Your task to perform on an android device: turn off wifi Image 0: 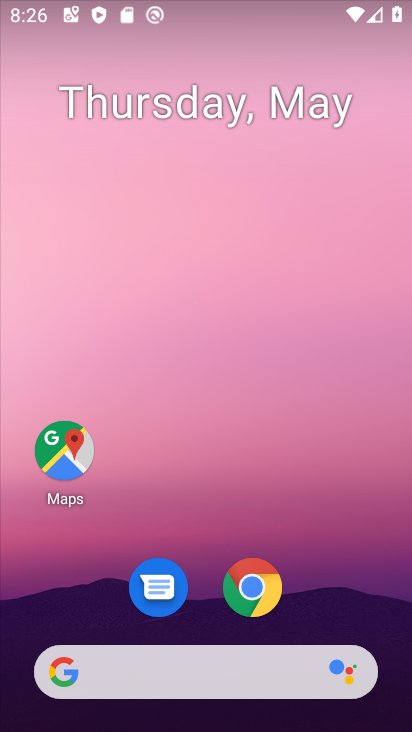
Step 0: drag from (223, 19) to (183, 630)
Your task to perform on an android device: turn off wifi Image 1: 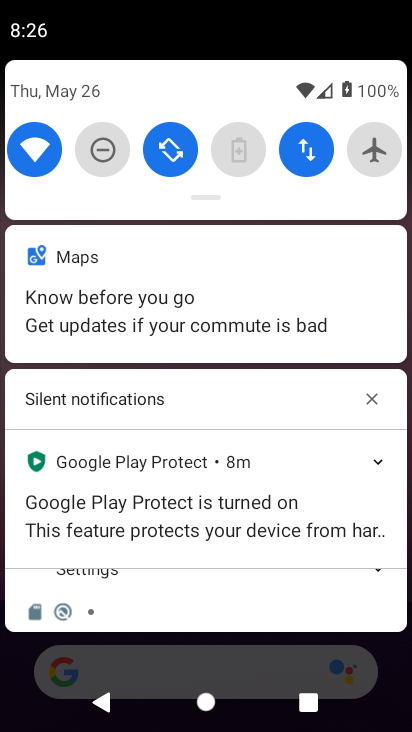
Step 1: click (29, 159)
Your task to perform on an android device: turn off wifi Image 2: 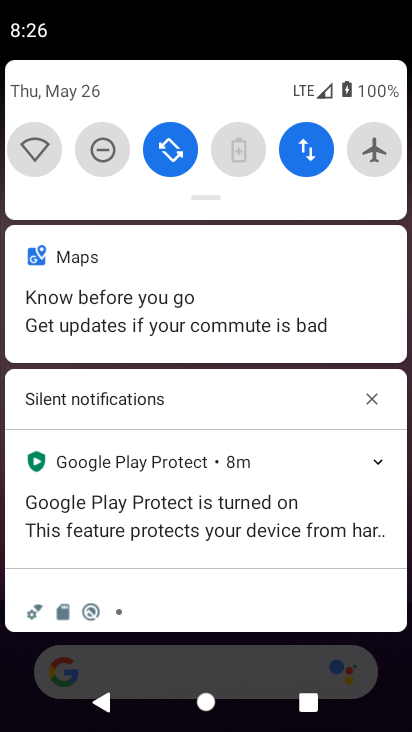
Step 2: task complete